Your task to perform on an android device: create a new album in the google photos Image 0: 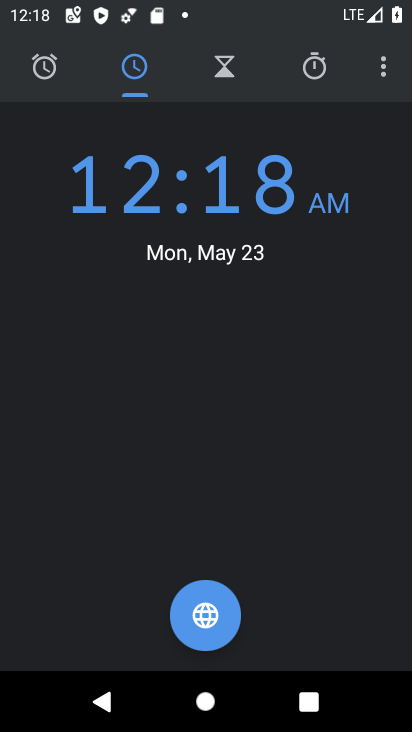
Step 0: press home button
Your task to perform on an android device: create a new album in the google photos Image 1: 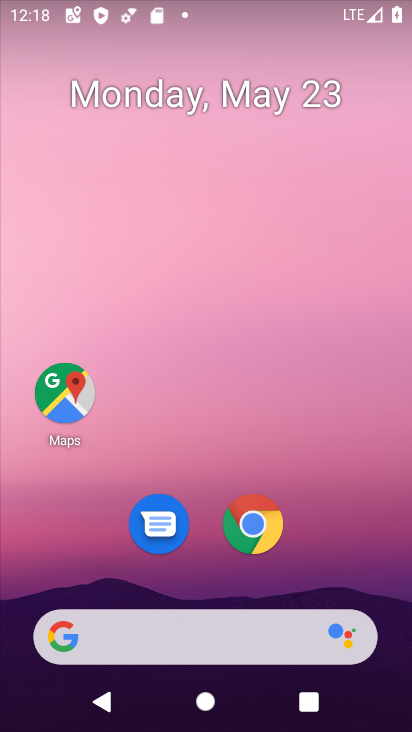
Step 1: drag from (331, 538) to (288, 49)
Your task to perform on an android device: create a new album in the google photos Image 2: 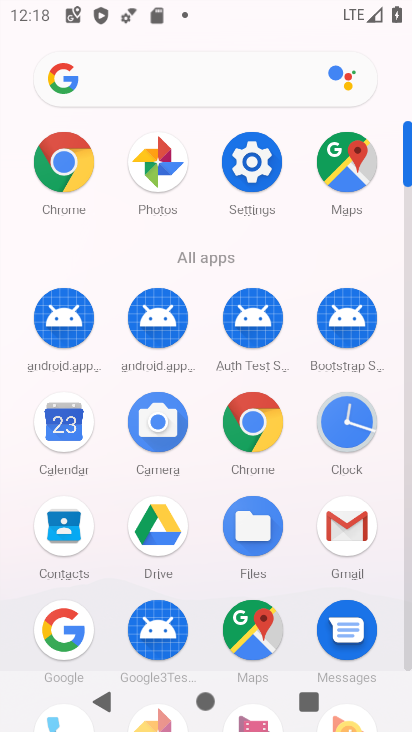
Step 2: click (147, 166)
Your task to perform on an android device: create a new album in the google photos Image 3: 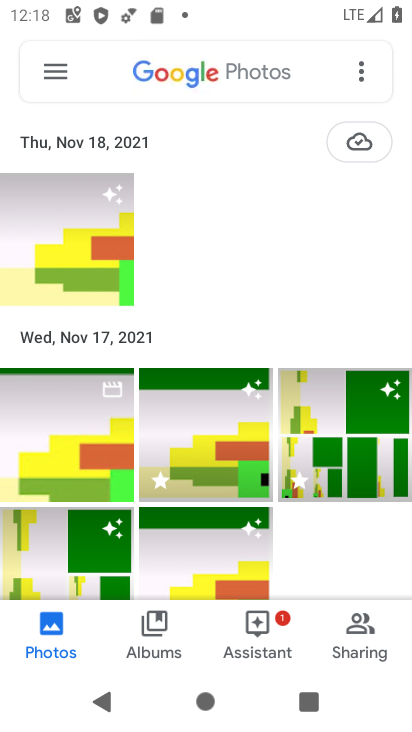
Step 3: click (149, 633)
Your task to perform on an android device: create a new album in the google photos Image 4: 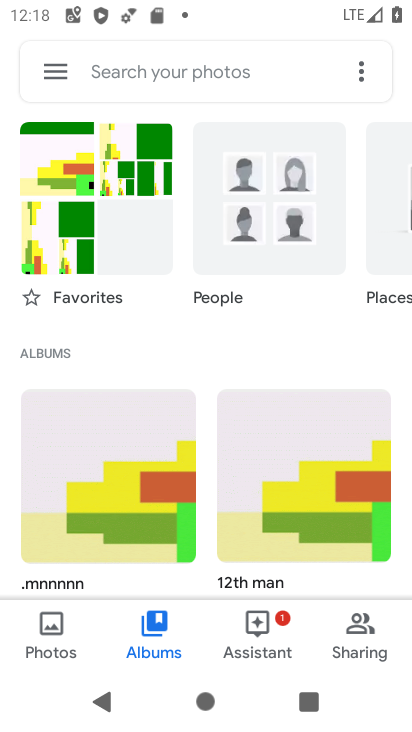
Step 4: drag from (138, 457) to (156, 121)
Your task to perform on an android device: create a new album in the google photos Image 5: 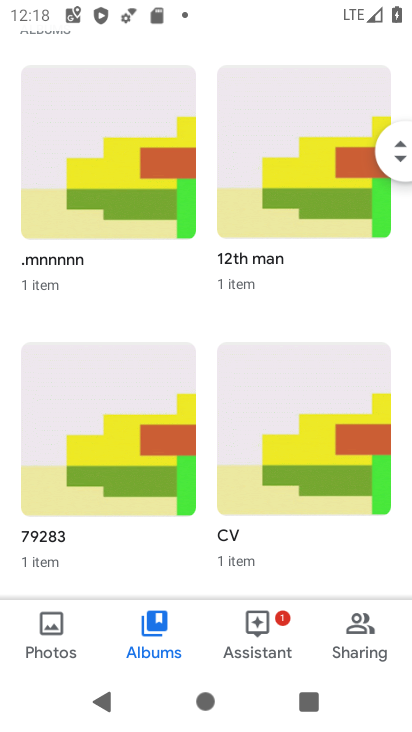
Step 5: drag from (173, 140) to (191, 506)
Your task to perform on an android device: create a new album in the google photos Image 6: 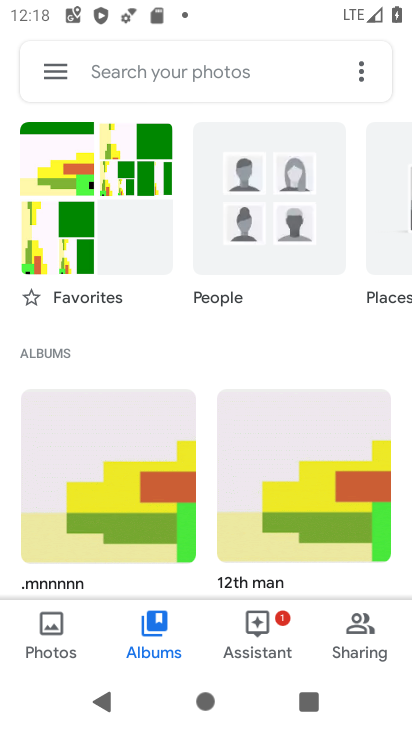
Step 6: click (363, 73)
Your task to perform on an android device: create a new album in the google photos Image 7: 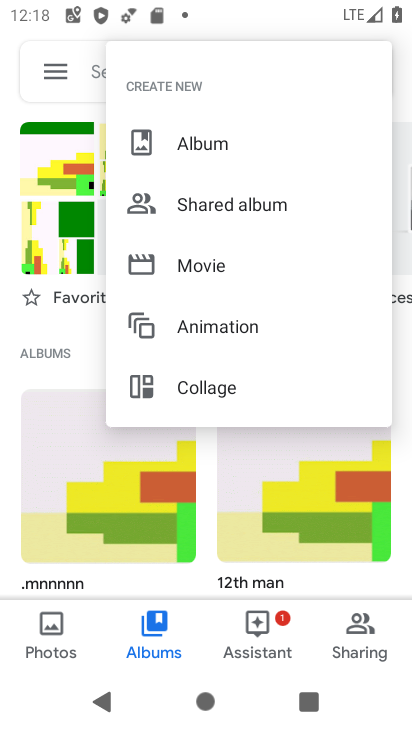
Step 7: click (280, 138)
Your task to perform on an android device: create a new album in the google photos Image 8: 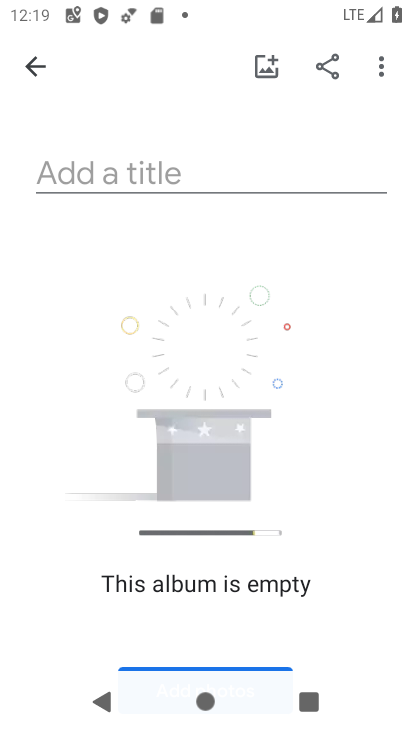
Step 8: click (232, 171)
Your task to perform on an android device: create a new album in the google photos Image 9: 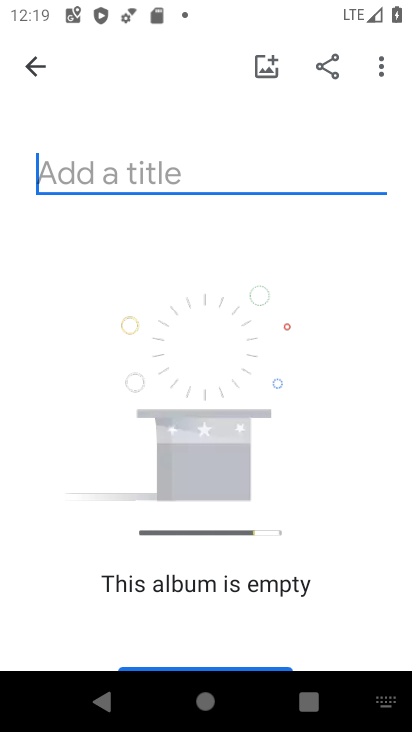
Step 9: type "Hastinapur Kurushetra"
Your task to perform on an android device: create a new album in the google photos Image 10: 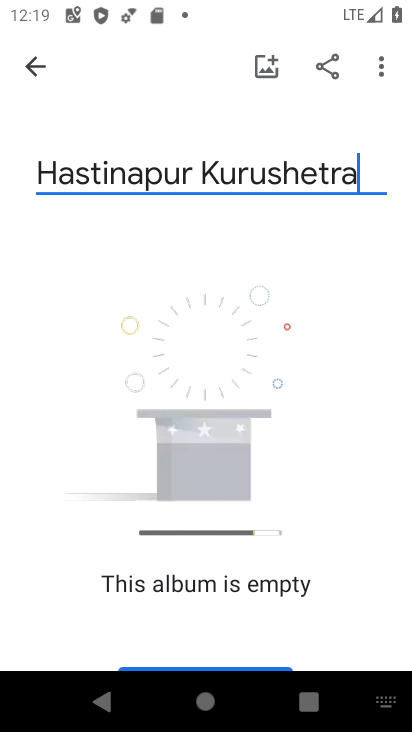
Step 10: drag from (206, 580) to (204, 328)
Your task to perform on an android device: create a new album in the google photos Image 11: 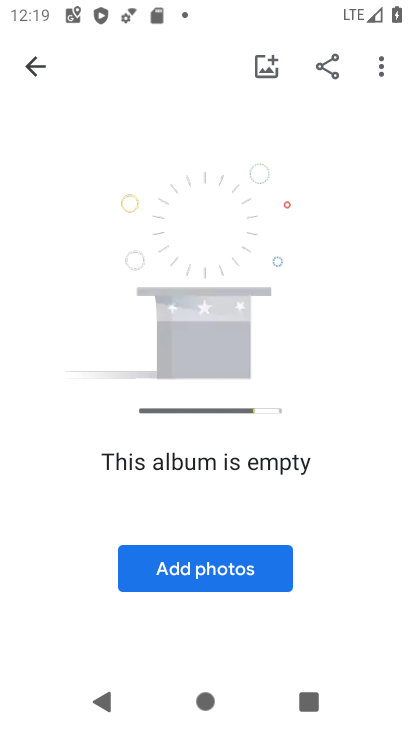
Step 11: click (223, 566)
Your task to perform on an android device: create a new album in the google photos Image 12: 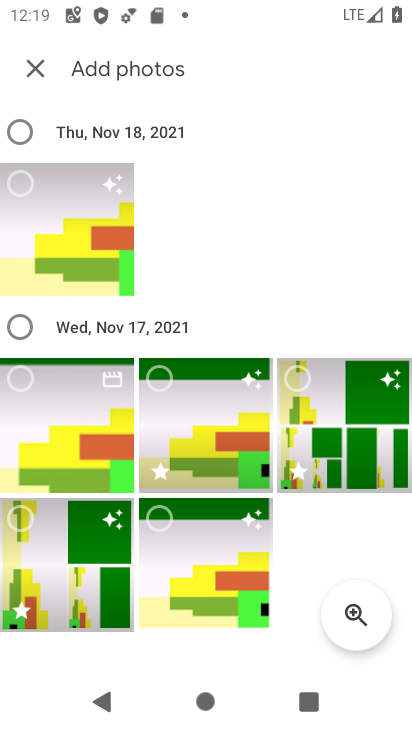
Step 12: click (12, 520)
Your task to perform on an android device: create a new album in the google photos Image 13: 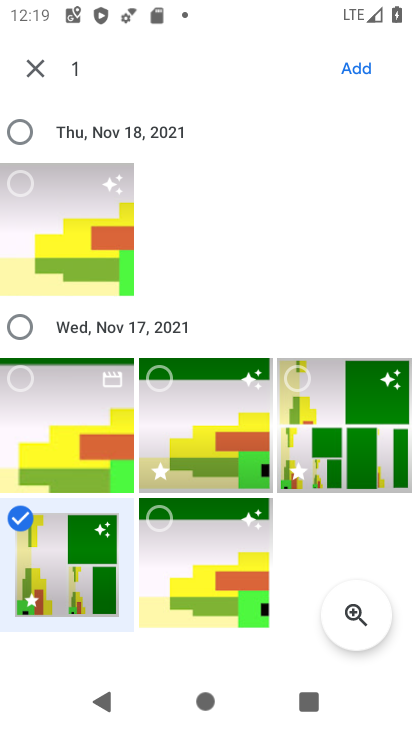
Step 13: click (152, 516)
Your task to perform on an android device: create a new album in the google photos Image 14: 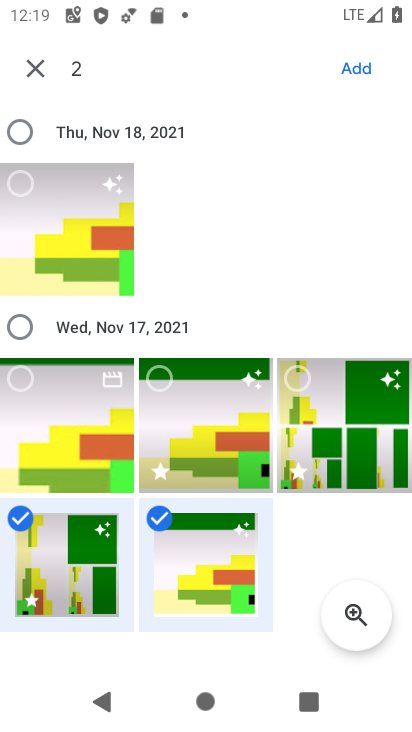
Step 14: click (356, 53)
Your task to perform on an android device: create a new album in the google photos Image 15: 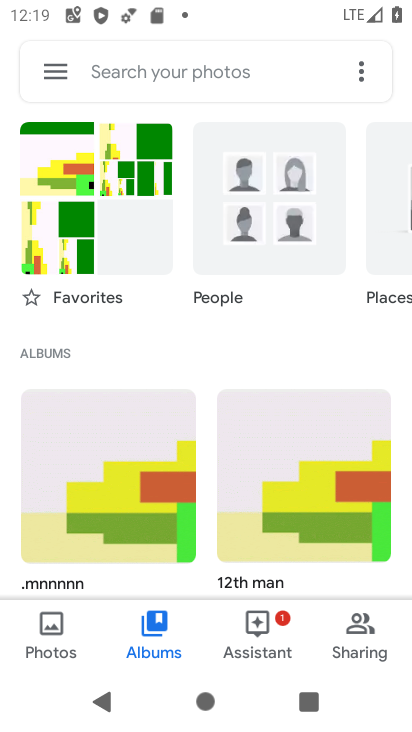
Step 15: task complete